Your task to perform on an android device: Go to notification settings Image 0: 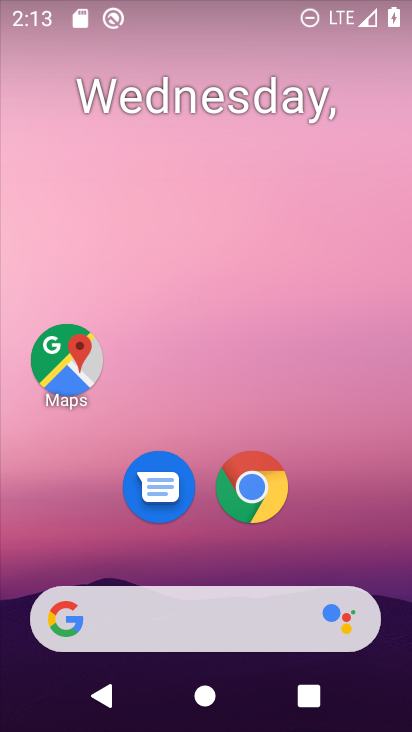
Step 0: drag from (402, 617) to (199, 19)
Your task to perform on an android device: Go to notification settings Image 1: 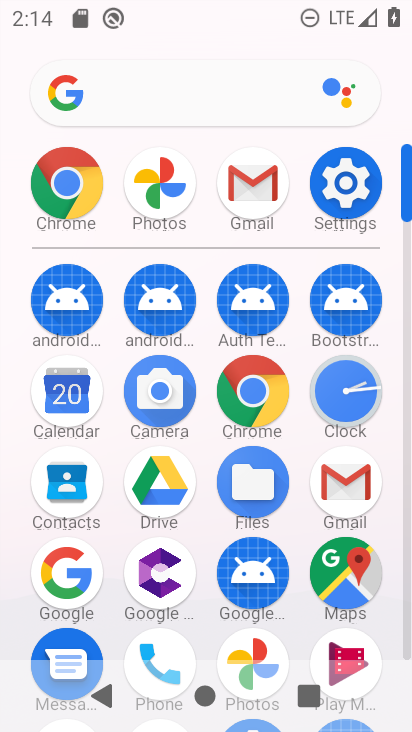
Step 1: click (358, 202)
Your task to perform on an android device: Go to notification settings Image 2: 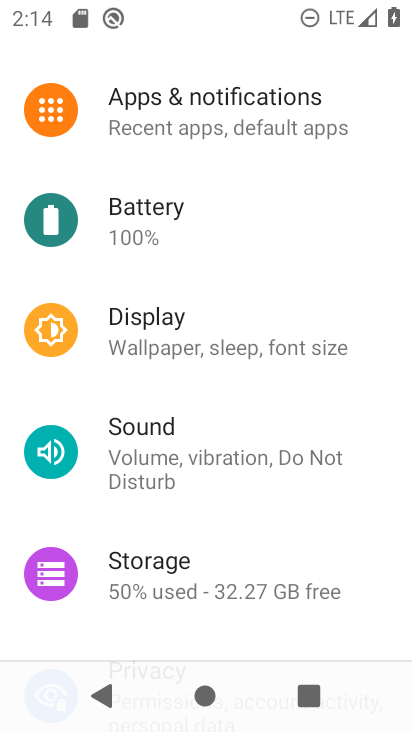
Step 2: click (204, 135)
Your task to perform on an android device: Go to notification settings Image 3: 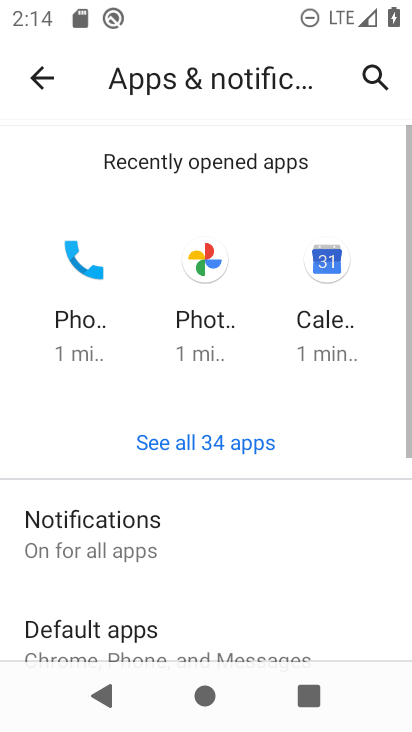
Step 3: click (187, 530)
Your task to perform on an android device: Go to notification settings Image 4: 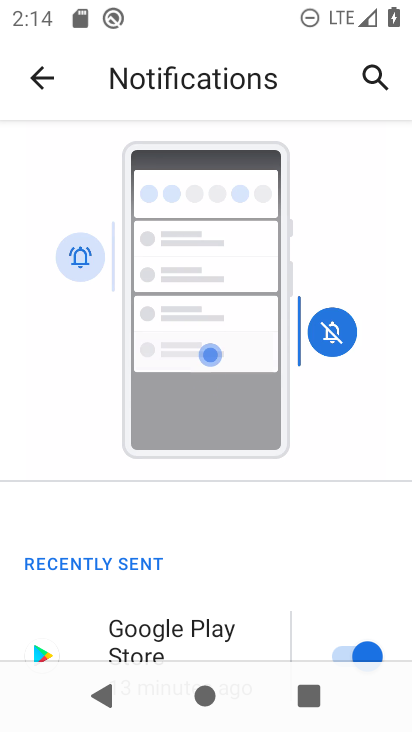
Step 4: drag from (160, 600) to (199, 119)
Your task to perform on an android device: Go to notification settings Image 5: 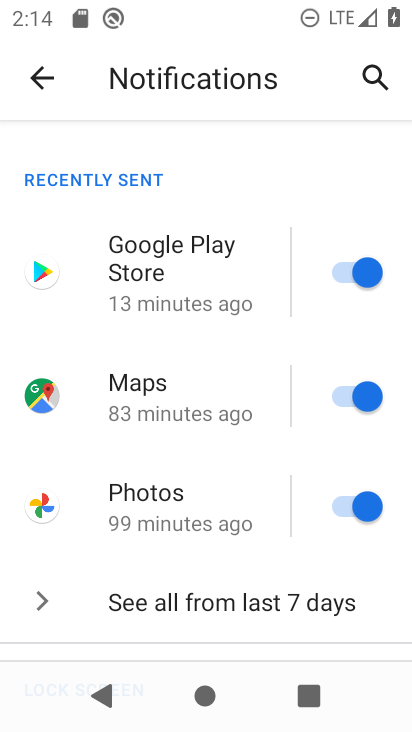
Step 5: drag from (233, 597) to (261, 153)
Your task to perform on an android device: Go to notification settings Image 6: 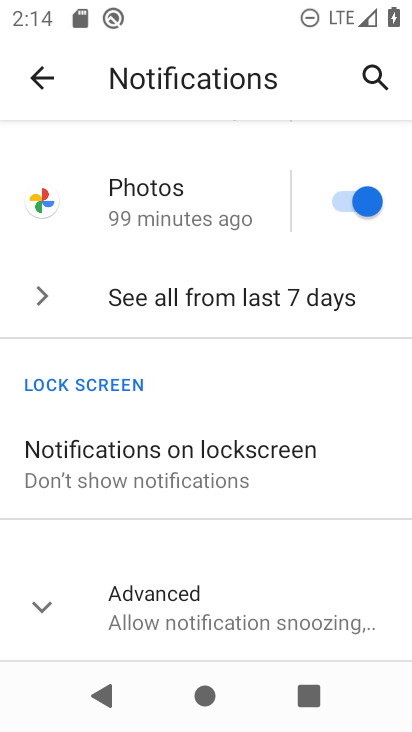
Step 6: click (111, 612)
Your task to perform on an android device: Go to notification settings Image 7: 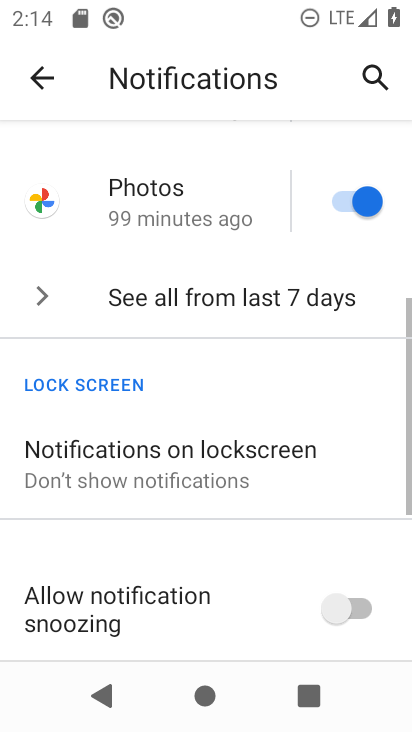
Step 7: task complete